Your task to perform on an android device: Is it going to rain tomorrow? Image 0: 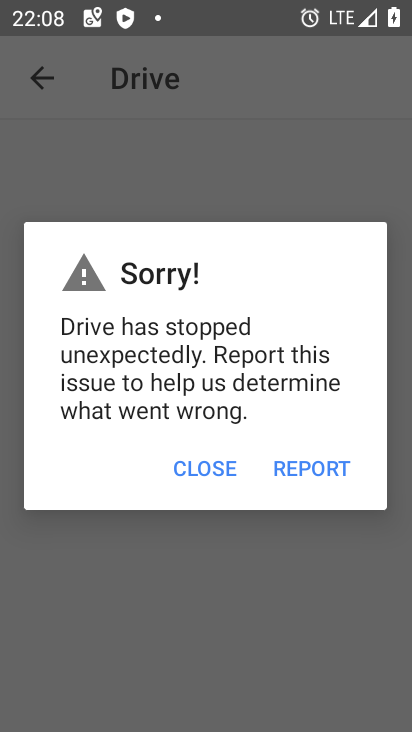
Step 0: press home button
Your task to perform on an android device: Is it going to rain tomorrow? Image 1: 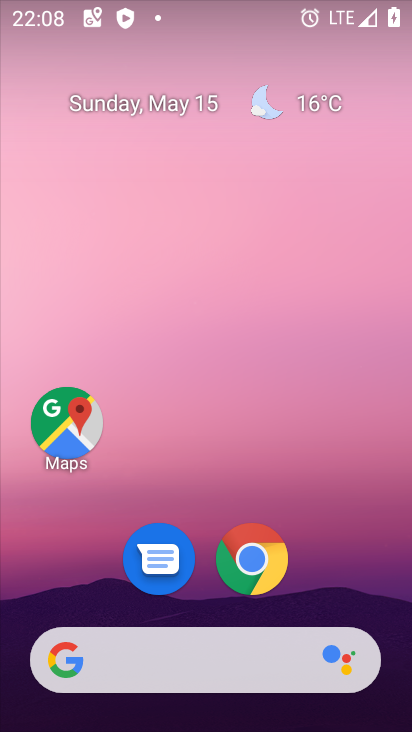
Step 1: click (195, 652)
Your task to perform on an android device: Is it going to rain tomorrow? Image 2: 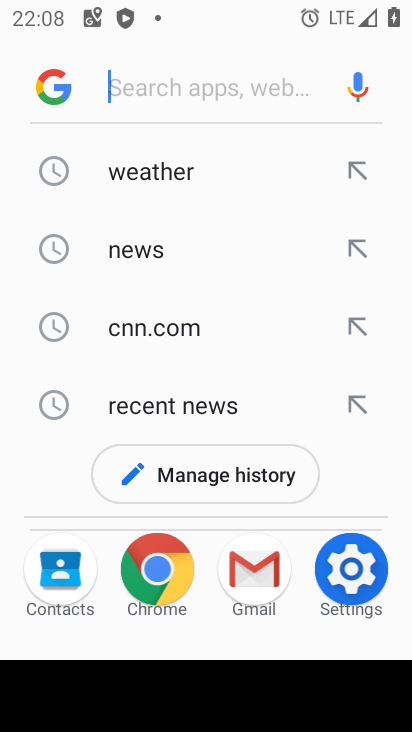
Step 2: click (159, 171)
Your task to perform on an android device: Is it going to rain tomorrow? Image 3: 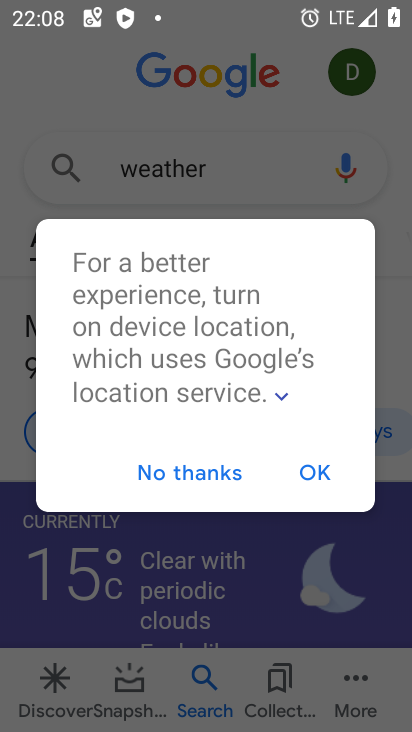
Step 3: click (312, 469)
Your task to perform on an android device: Is it going to rain tomorrow? Image 4: 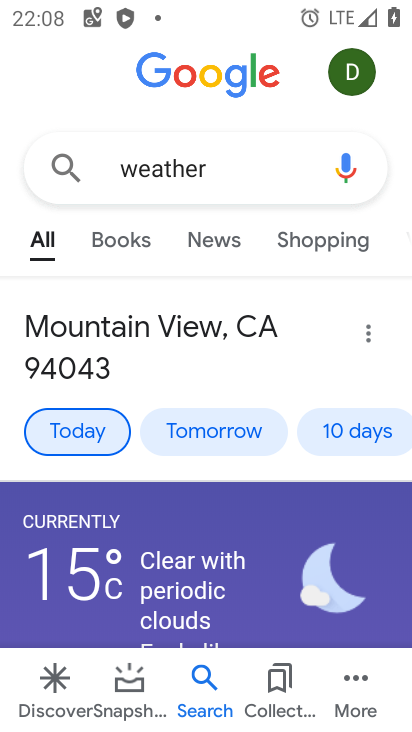
Step 4: drag from (216, 570) to (171, 406)
Your task to perform on an android device: Is it going to rain tomorrow? Image 5: 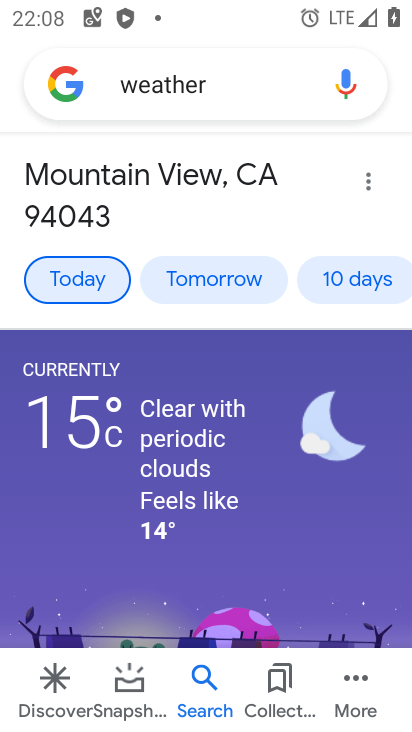
Step 5: click (171, 406)
Your task to perform on an android device: Is it going to rain tomorrow? Image 6: 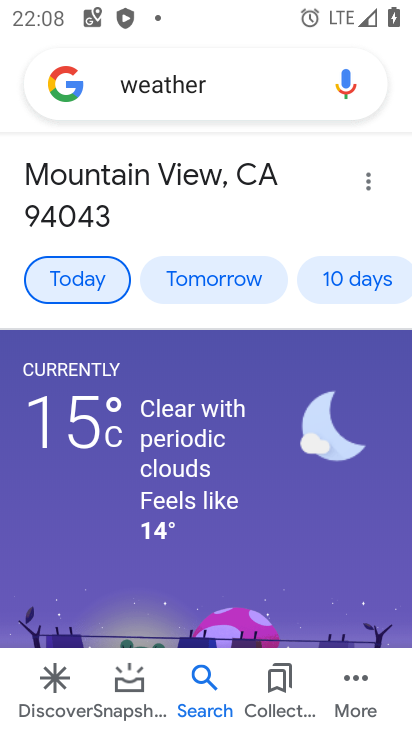
Step 6: click (215, 278)
Your task to perform on an android device: Is it going to rain tomorrow? Image 7: 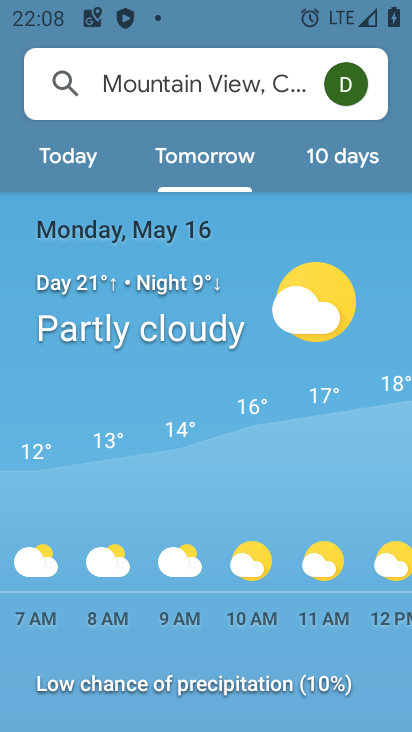
Step 7: task complete